Your task to perform on an android device: change text size in settings app Image 0: 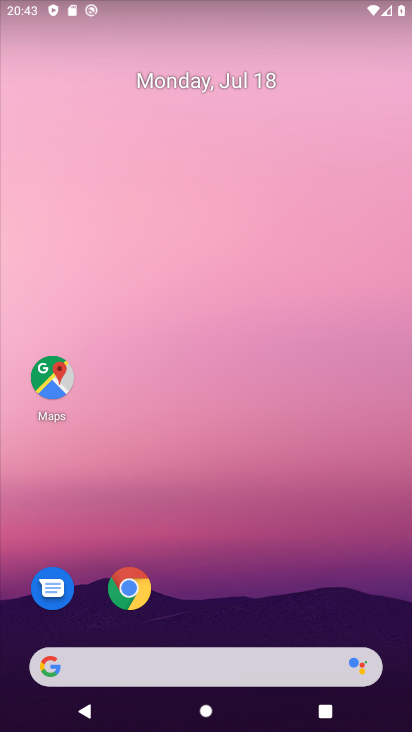
Step 0: press home button
Your task to perform on an android device: change text size in settings app Image 1: 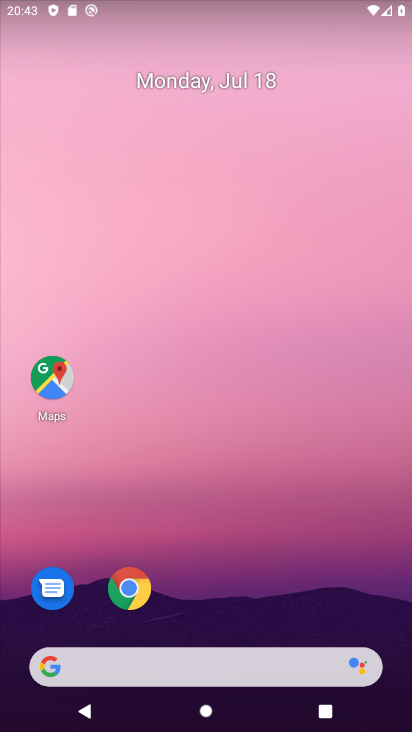
Step 1: drag from (149, 657) to (300, 157)
Your task to perform on an android device: change text size in settings app Image 2: 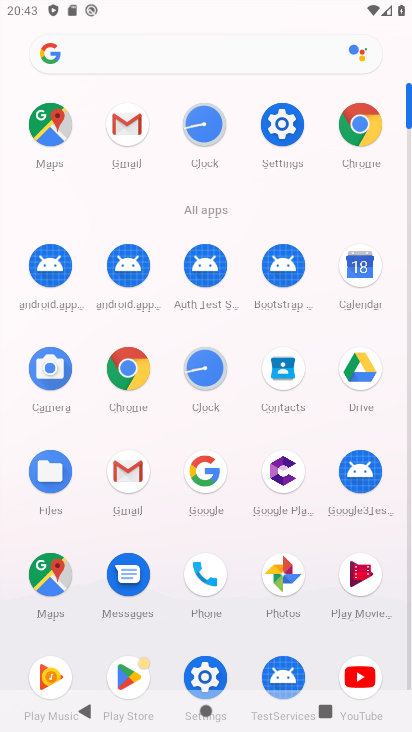
Step 2: click (277, 127)
Your task to perform on an android device: change text size in settings app Image 3: 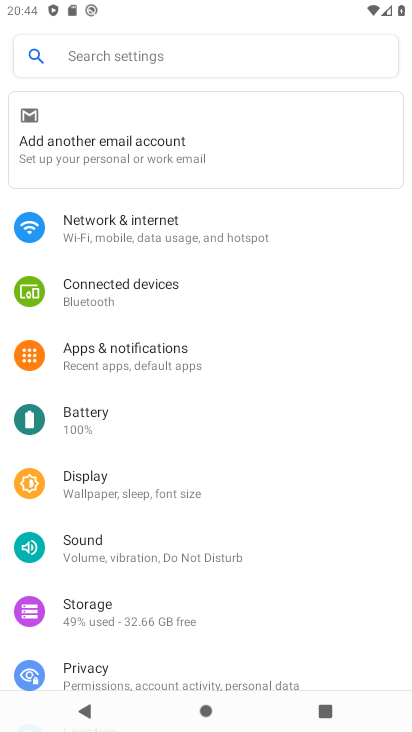
Step 3: click (102, 485)
Your task to perform on an android device: change text size in settings app Image 4: 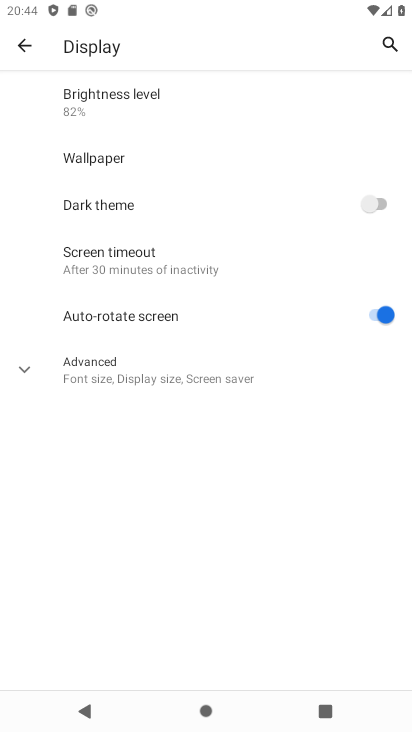
Step 4: click (100, 359)
Your task to perform on an android device: change text size in settings app Image 5: 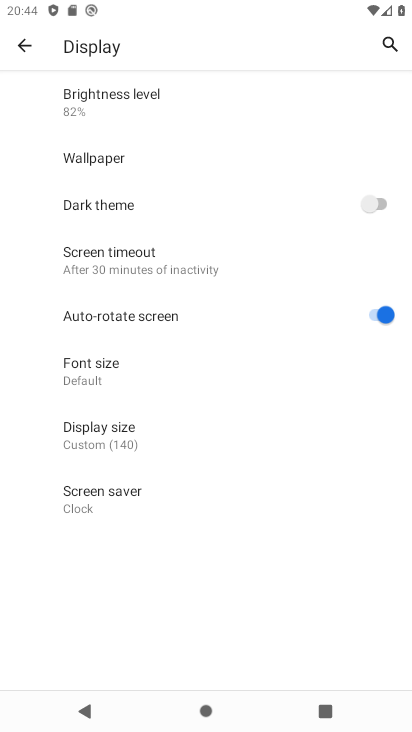
Step 5: click (94, 376)
Your task to perform on an android device: change text size in settings app Image 6: 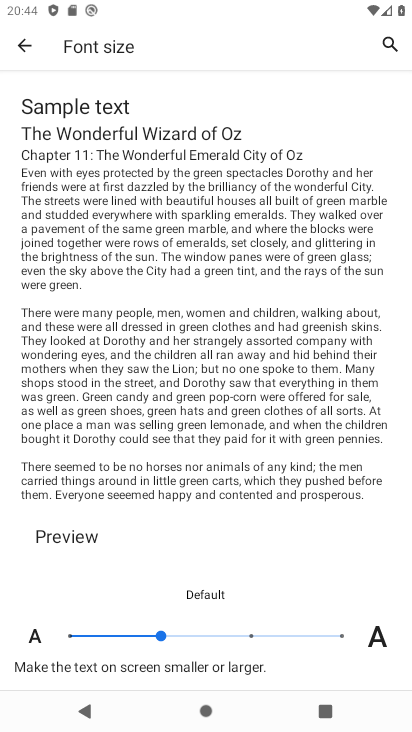
Step 6: click (251, 636)
Your task to perform on an android device: change text size in settings app Image 7: 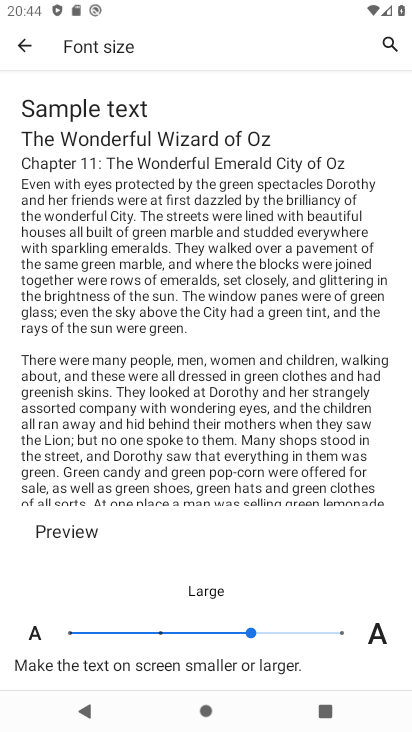
Step 7: task complete